Your task to perform on an android device: turn on wifi Image 0: 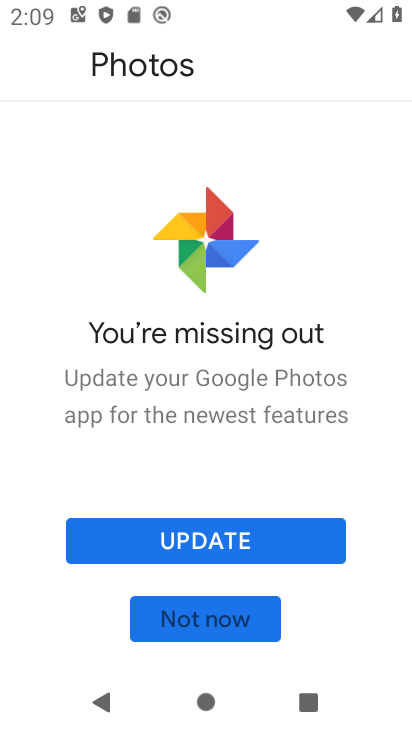
Step 0: drag from (137, 16) to (209, 697)
Your task to perform on an android device: turn on wifi Image 1: 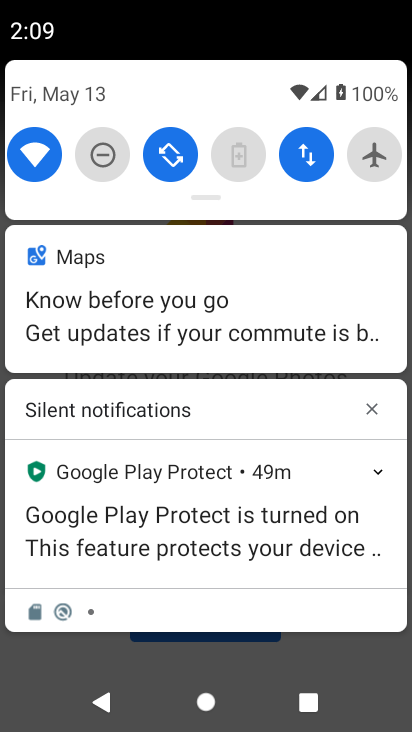
Step 1: task complete